Your task to perform on an android device: Check the latest toasters on Target. Image 0: 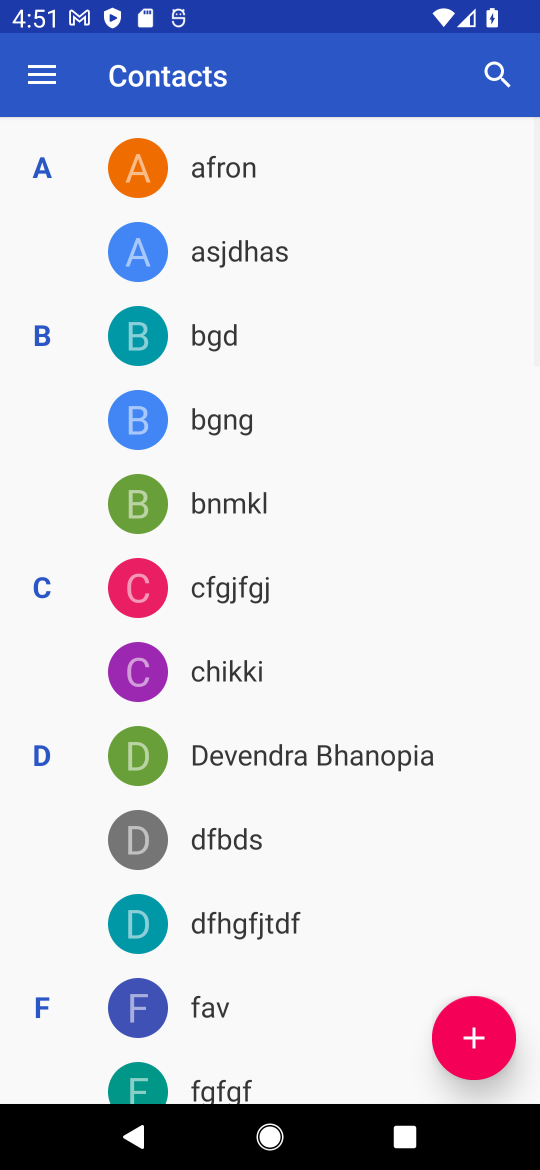
Step 0: press home button
Your task to perform on an android device: Check the latest toasters on Target. Image 1: 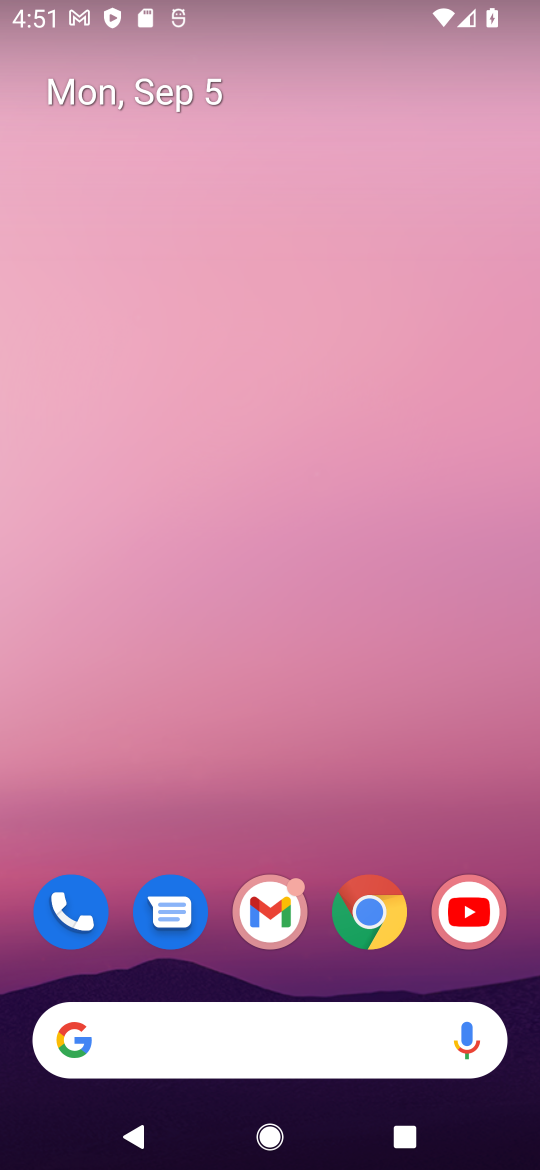
Step 1: click (380, 912)
Your task to perform on an android device: Check the latest toasters on Target. Image 2: 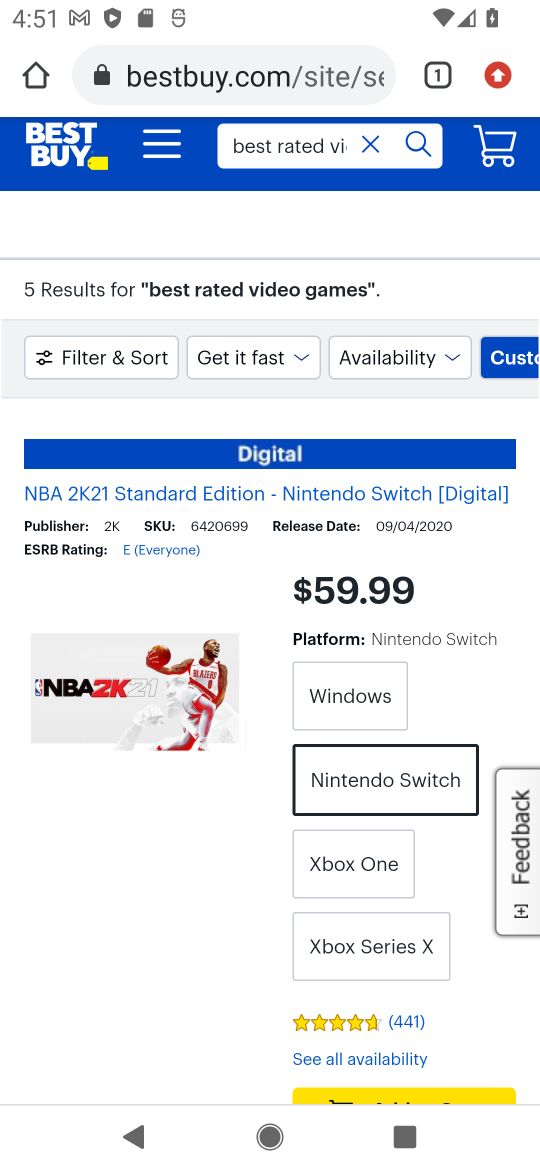
Step 2: click (295, 54)
Your task to perform on an android device: Check the latest toasters on Target. Image 3: 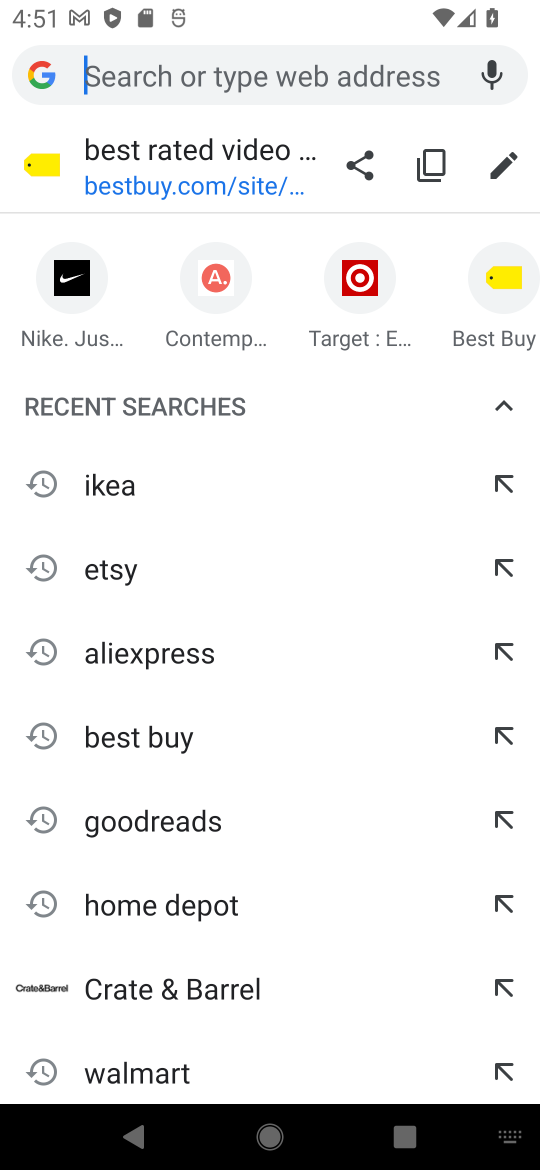
Step 3: type "target"
Your task to perform on an android device: Check the latest toasters on Target. Image 4: 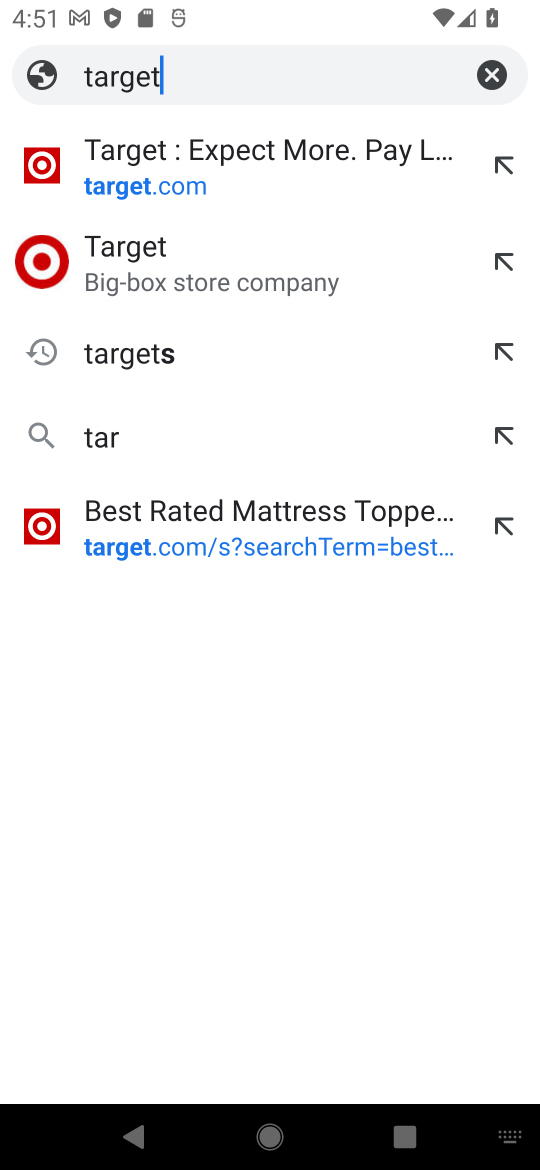
Step 4: press enter
Your task to perform on an android device: Check the latest toasters on Target. Image 5: 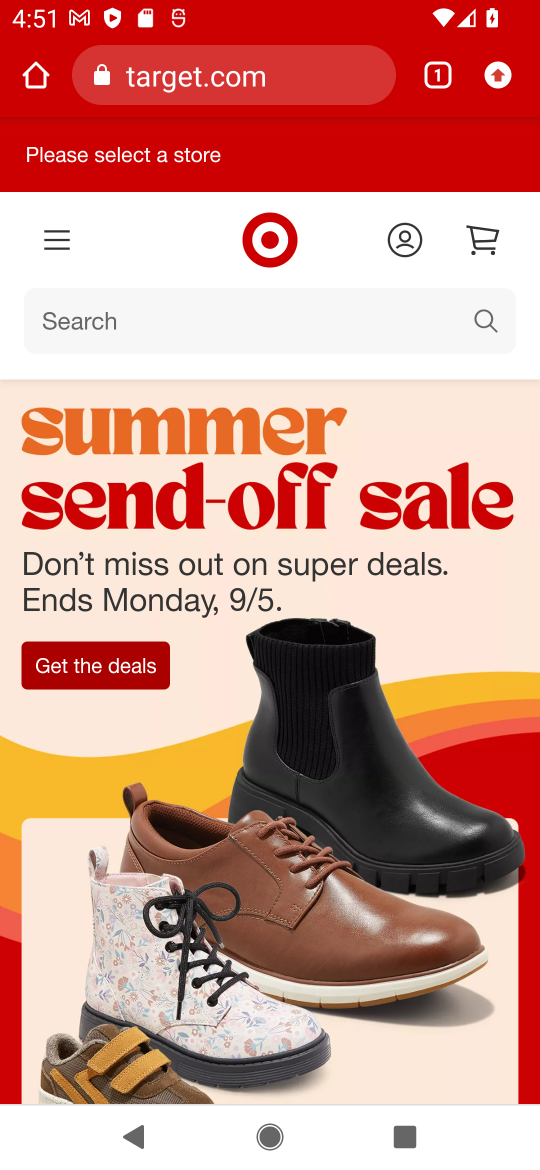
Step 5: click (226, 310)
Your task to perform on an android device: Check the latest toasters on Target. Image 6: 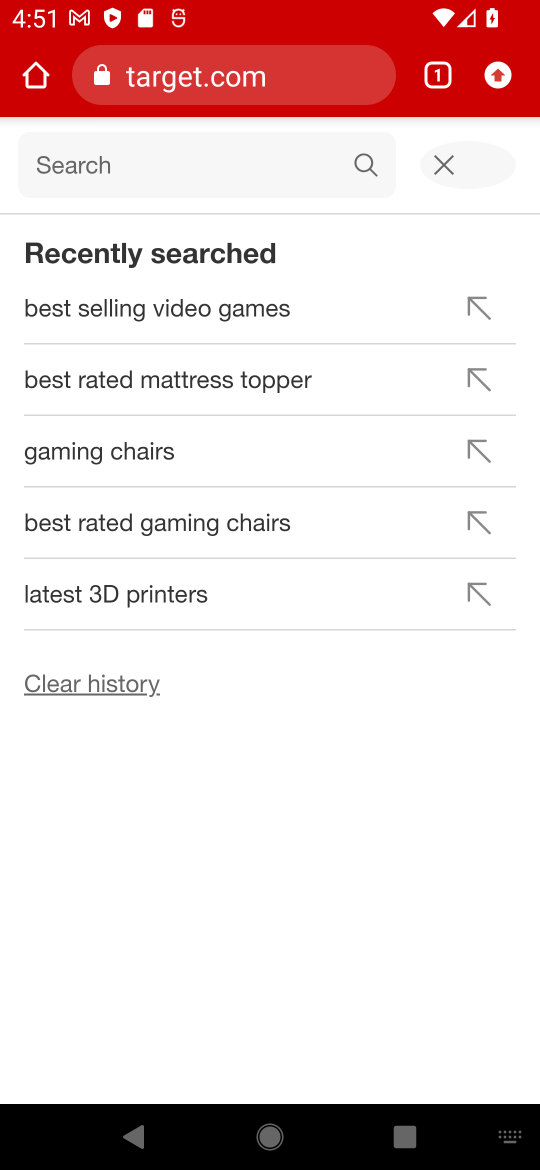
Step 6: type "toasters"
Your task to perform on an android device: Check the latest toasters on Target. Image 7: 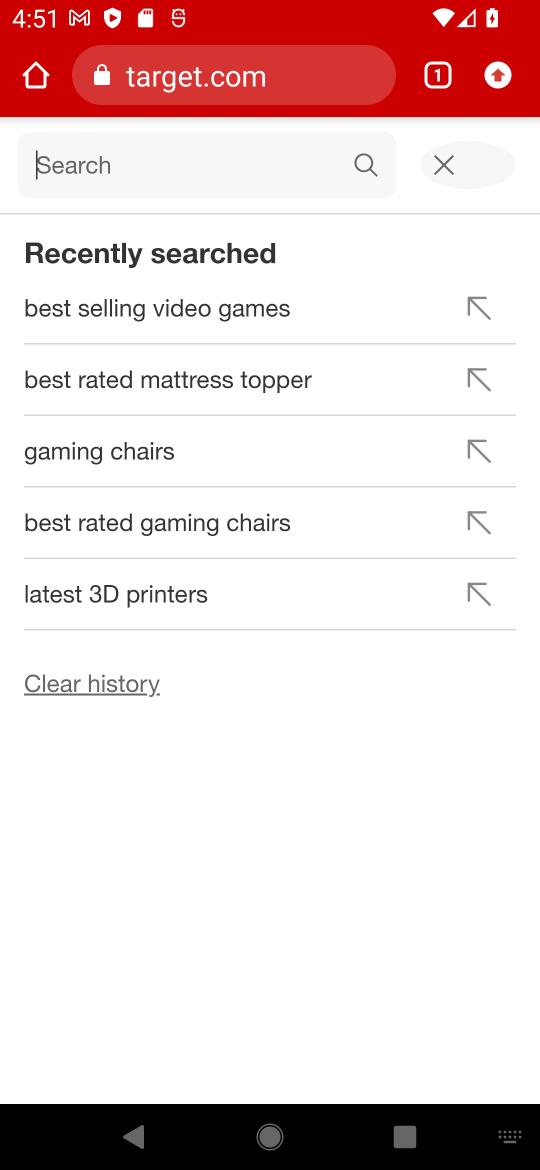
Step 7: type ""
Your task to perform on an android device: Check the latest toasters on Target. Image 8: 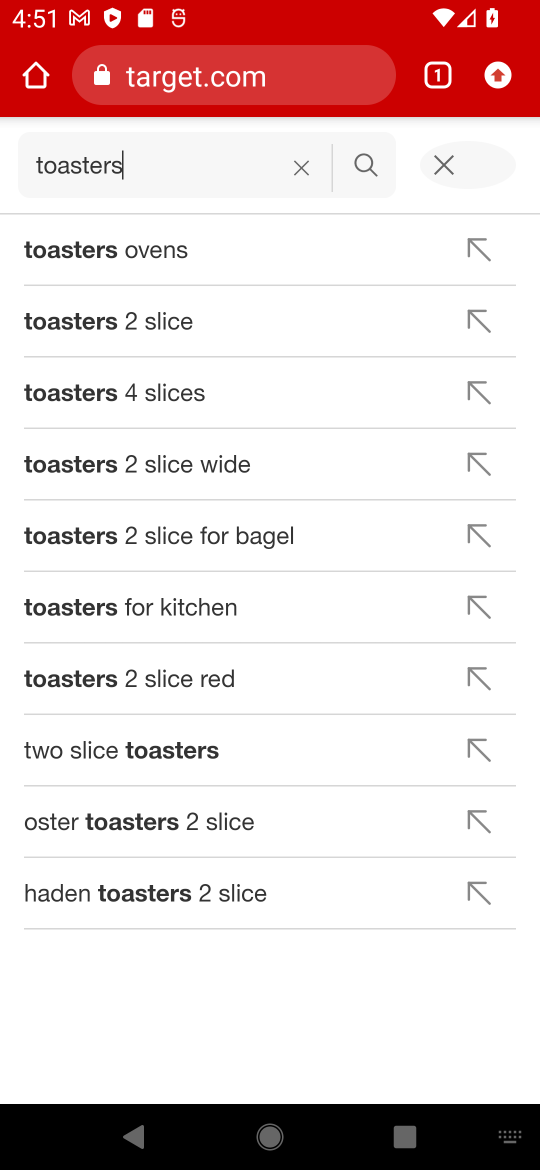
Step 8: press enter
Your task to perform on an android device: Check the latest toasters on Target. Image 9: 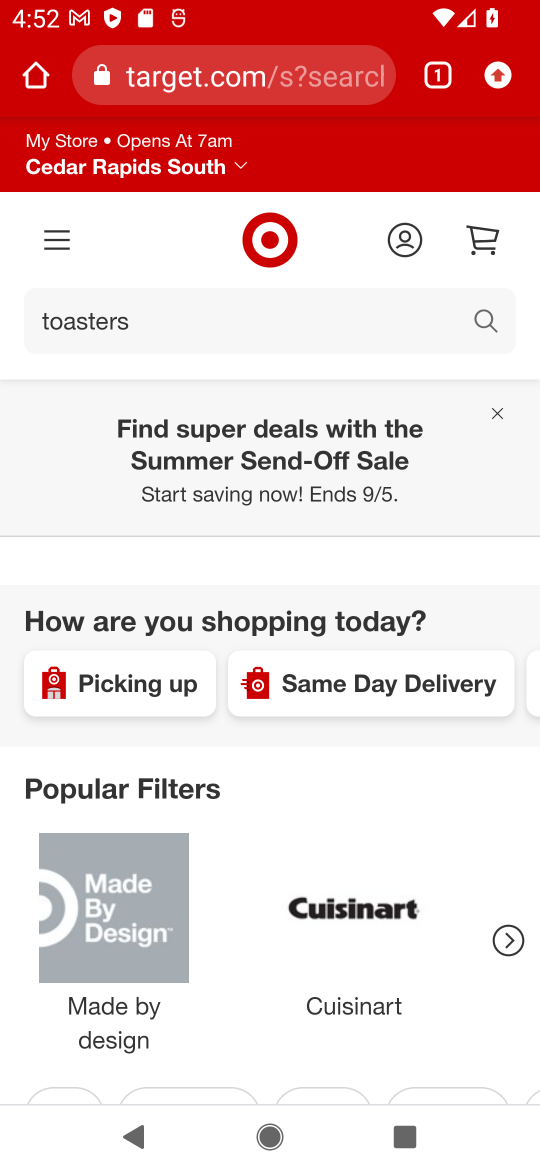
Step 9: drag from (256, 865) to (277, 475)
Your task to perform on an android device: Check the latest toasters on Target. Image 10: 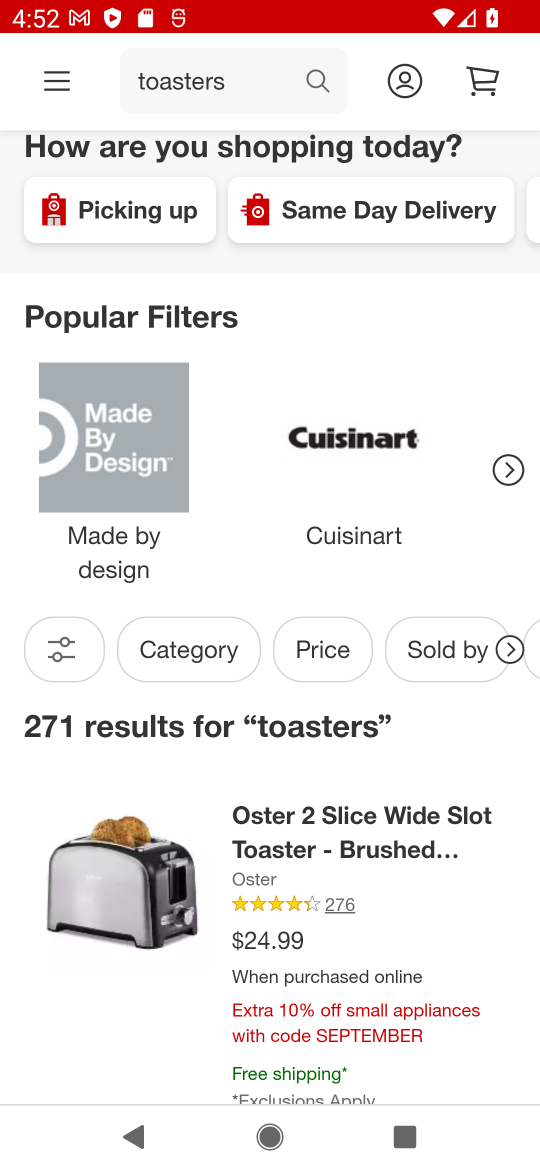
Step 10: click (63, 639)
Your task to perform on an android device: Check the latest toasters on Target. Image 11: 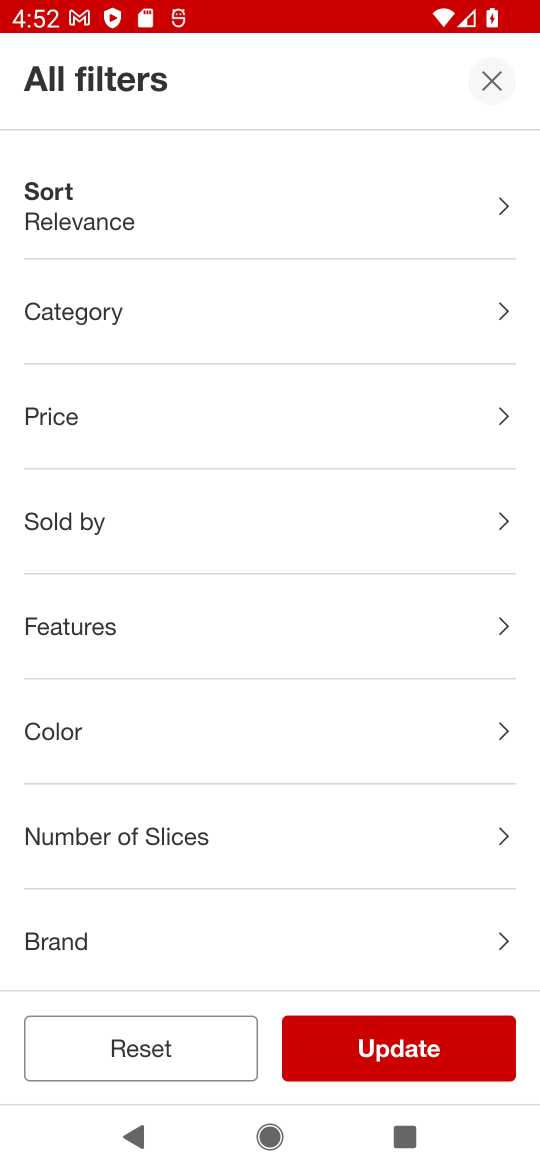
Step 11: click (397, 209)
Your task to perform on an android device: Check the latest toasters on Target. Image 12: 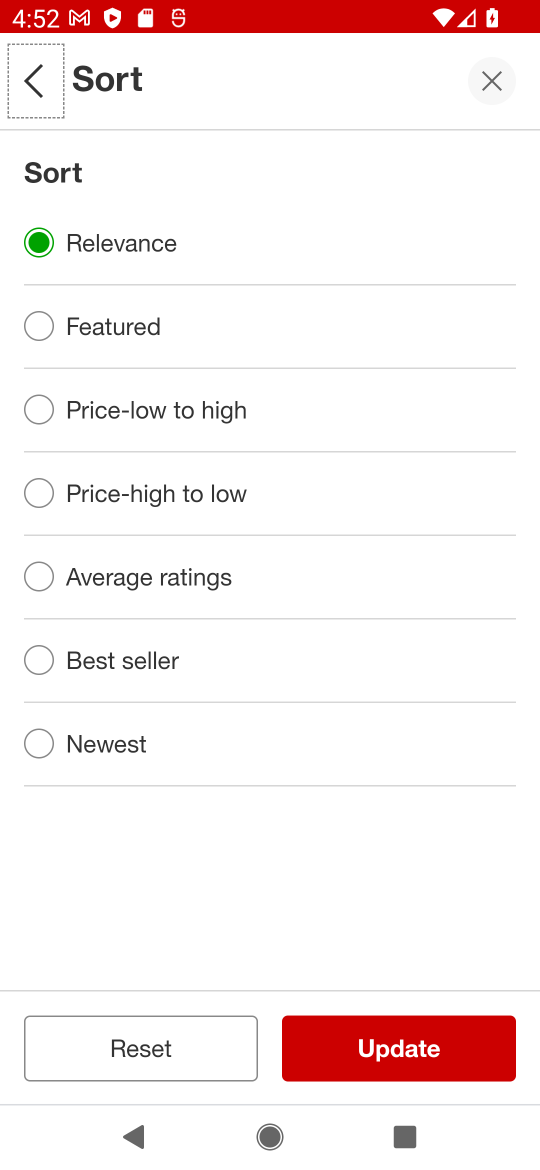
Step 12: click (194, 739)
Your task to perform on an android device: Check the latest toasters on Target. Image 13: 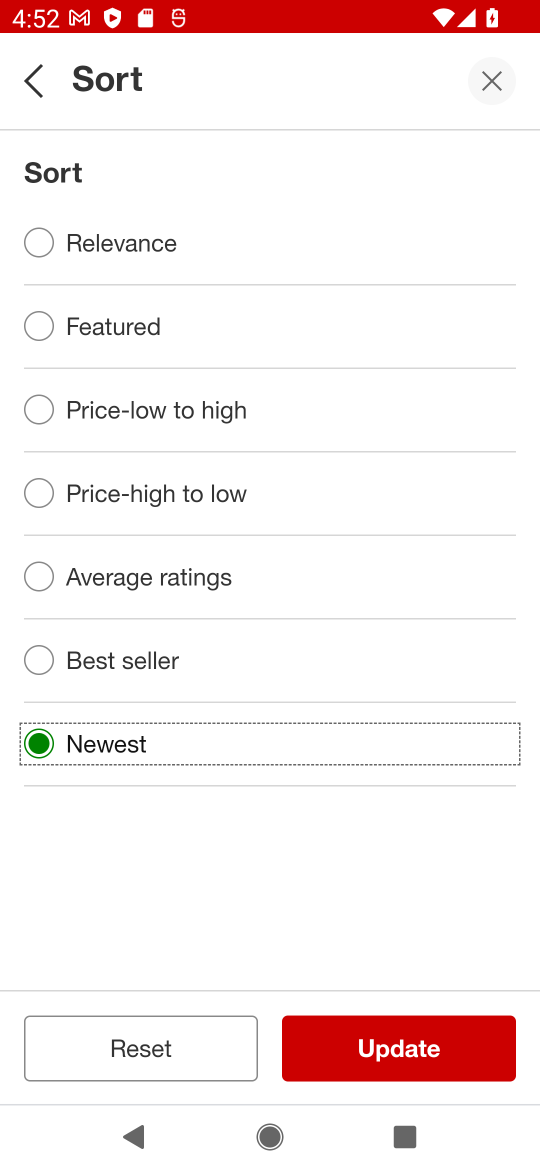
Step 13: click (403, 1052)
Your task to perform on an android device: Check the latest toasters on Target. Image 14: 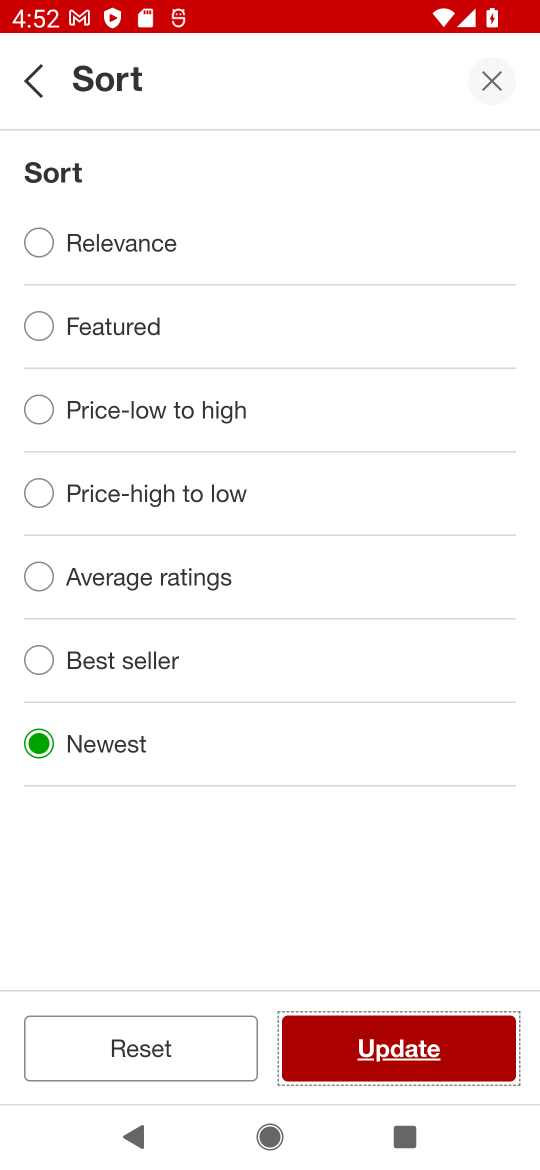
Step 14: click (355, 1040)
Your task to perform on an android device: Check the latest toasters on Target. Image 15: 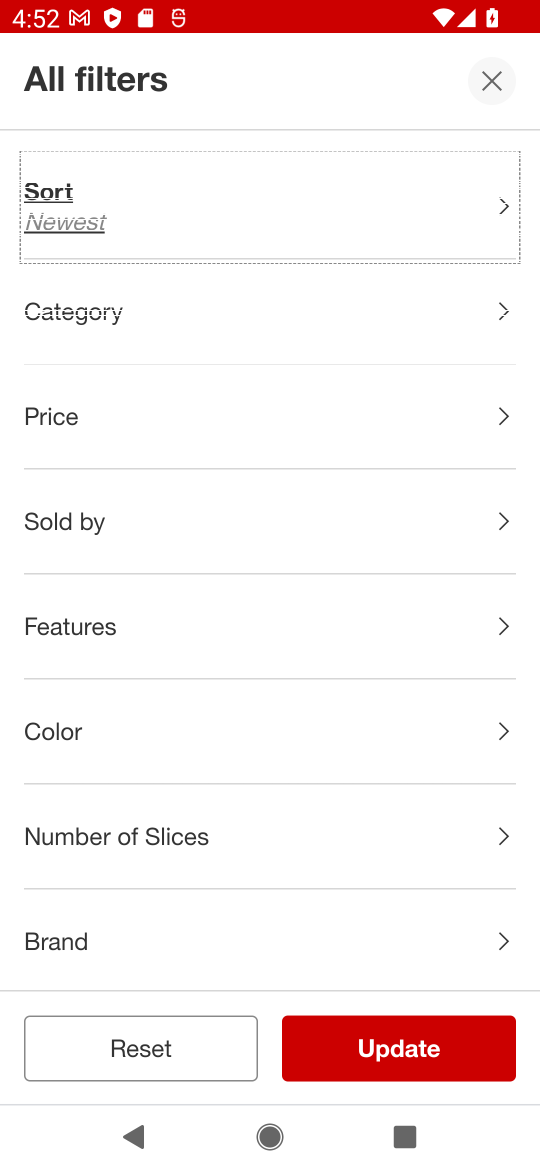
Step 15: click (424, 1052)
Your task to perform on an android device: Check the latest toasters on Target. Image 16: 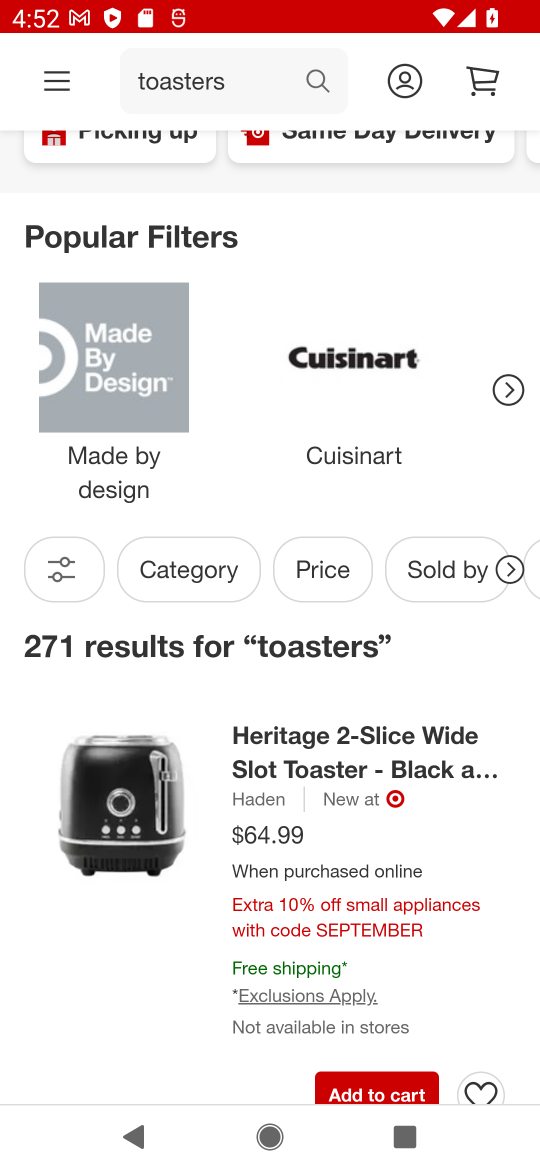
Step 16: drag from (285, 896) to (381, 481)
Your task to perform on an android device: Check the latest toasters on Target. Image 17: 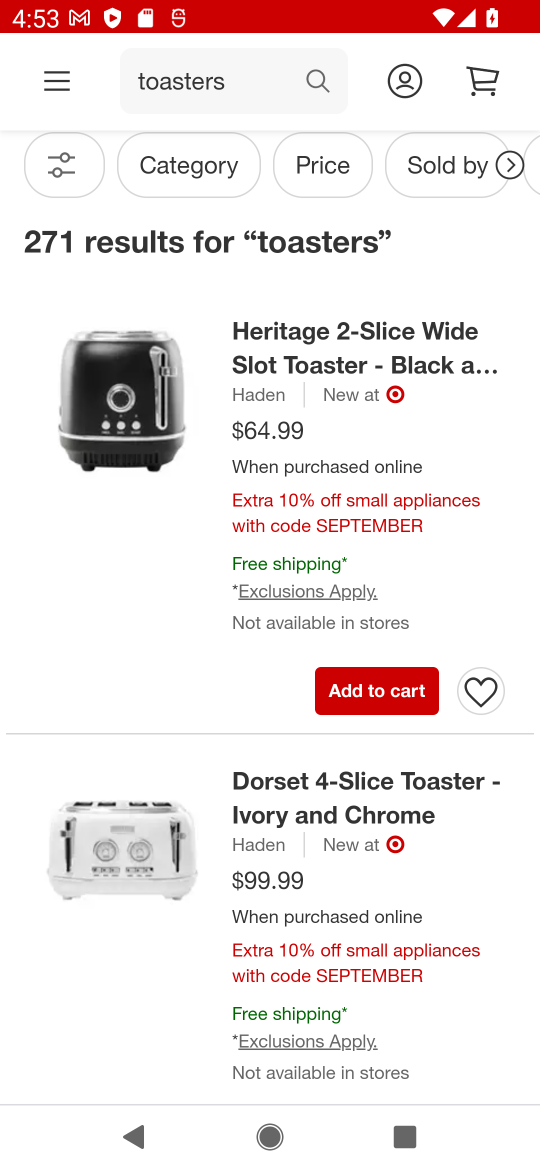
Step 17: drag from (256, 705) to (245, 945)
Your task to perform on an android device: Check the latest toasters on Target. Image 18: 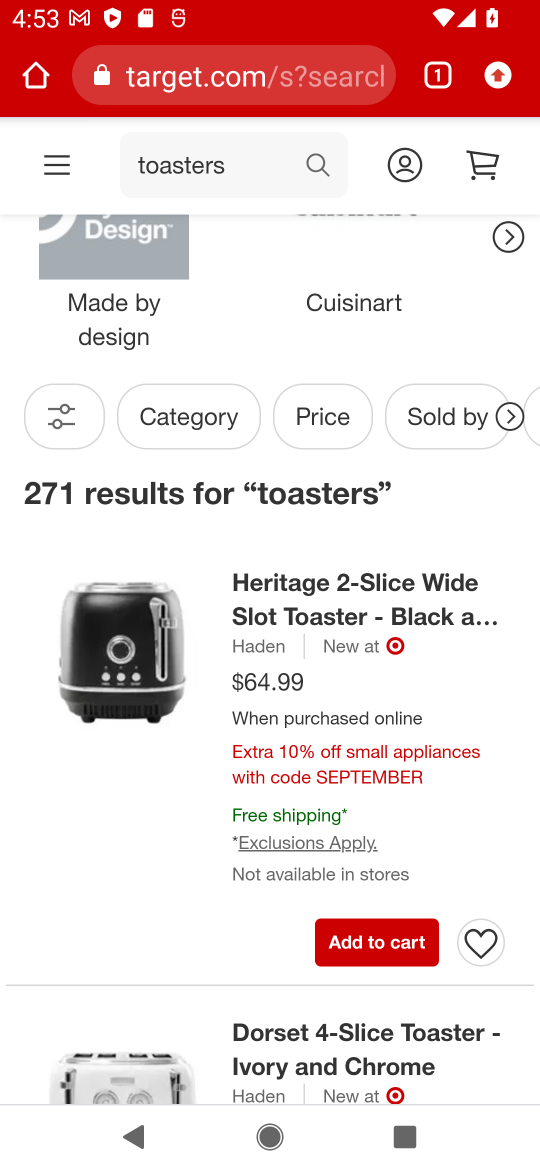
Step 18: click (64, 426)
Your task to perform on an android device: Check the latest toasters on Target. Image 19: 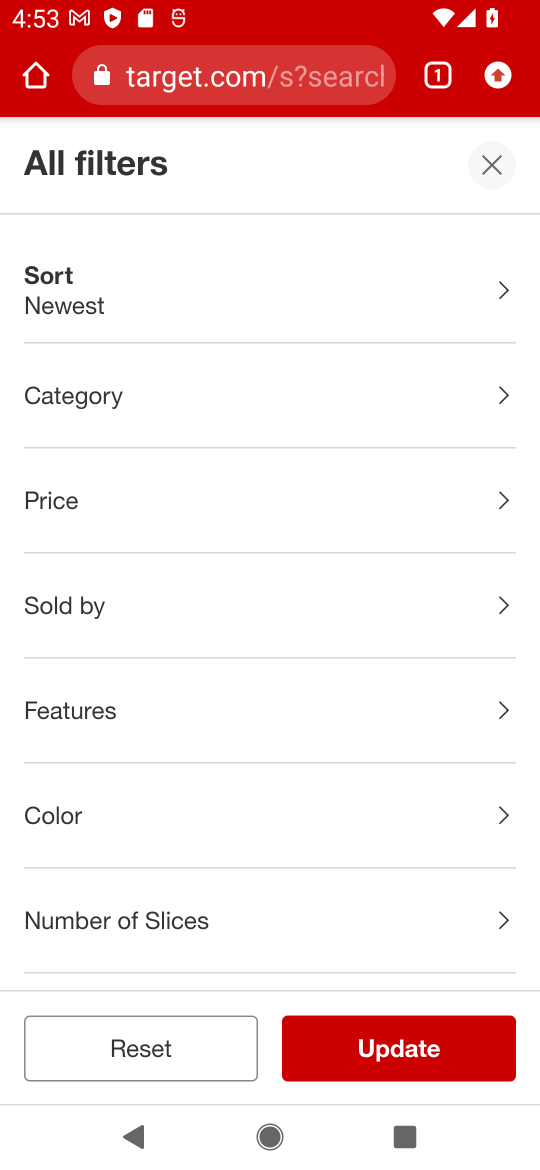
Step 19: click (386, 1065)
Your task to perform on an android device: Check the latest toasters on Target. Image 20: 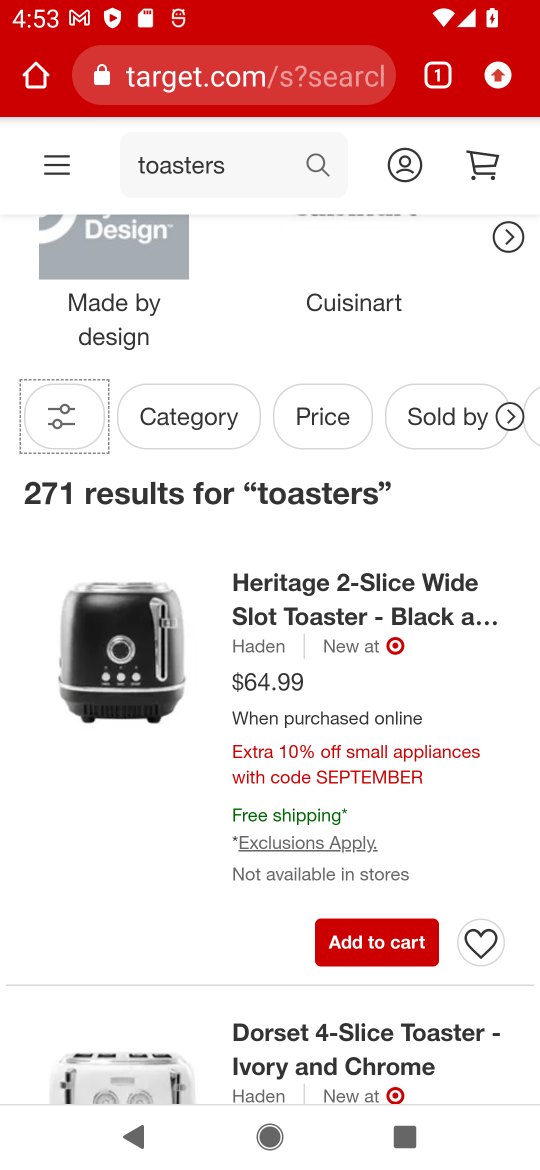
Step 20: task complete